Your task to perform on an android device: turn off improve location accuracy Image 0: 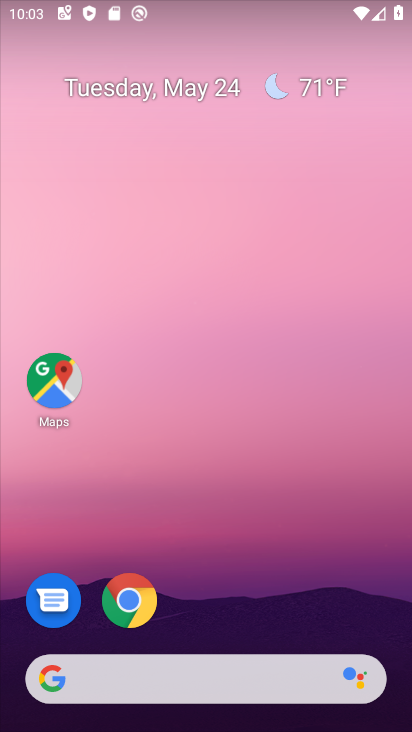
Step 0: press home button
Your task to perform on an android device: turn off improve location accuracy Image 1: 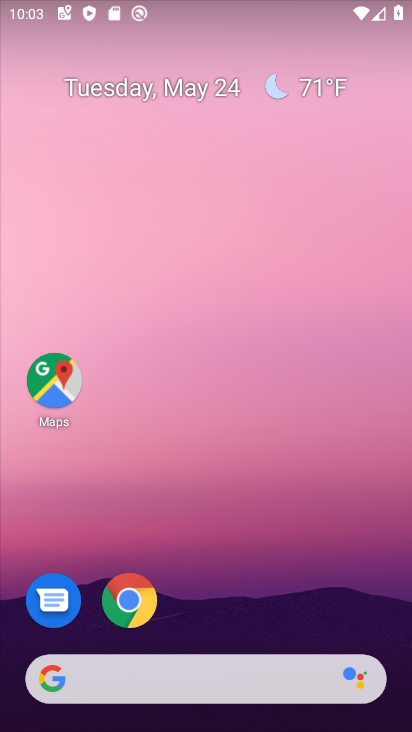
Step 1: drag from (192, 599) to (226, 0)
Your task to perform on an android device: turn off improve location accuracy Image 2: 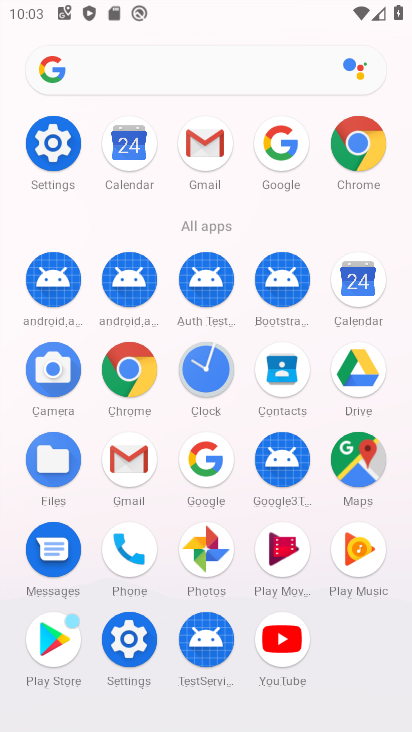
Step 2: click (41, 151)
Your task to perform on an android device: turn off improve location accuracy Image 3: 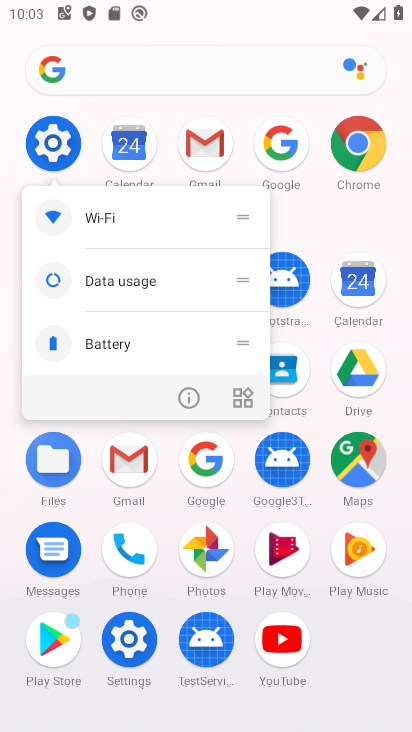
Step 3: click (45, 149)
Your task to perform on an android device: turn off improve location accuracy Image 4: 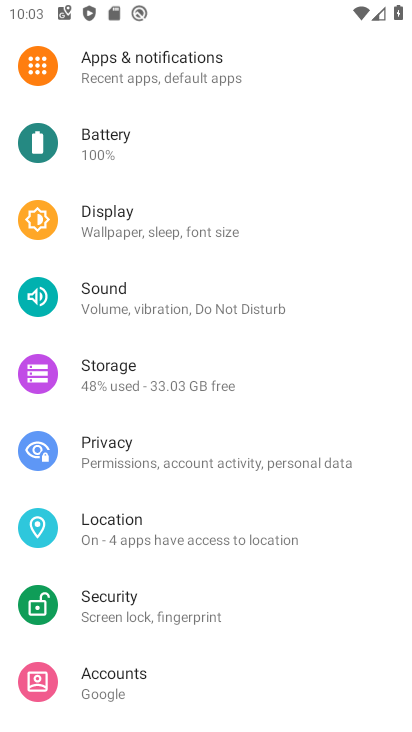
Step 4: click (167, 536)
Your task to perform on an android device: turn off improve location accuracy Image 5: 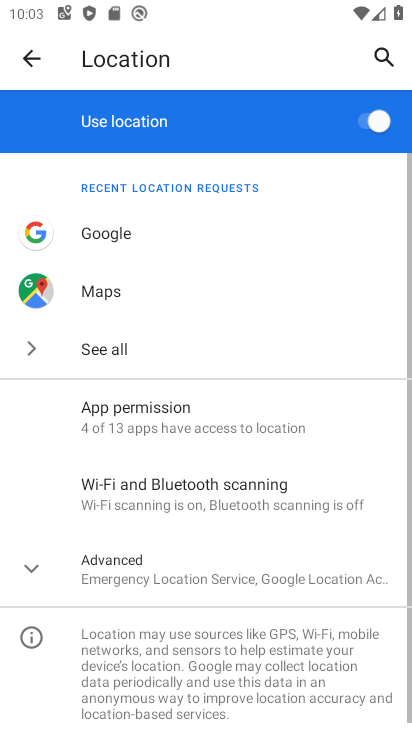
Step 5: click (108, 563)
Your task to perform on an android device: turn off improve location accuracy Image 6: 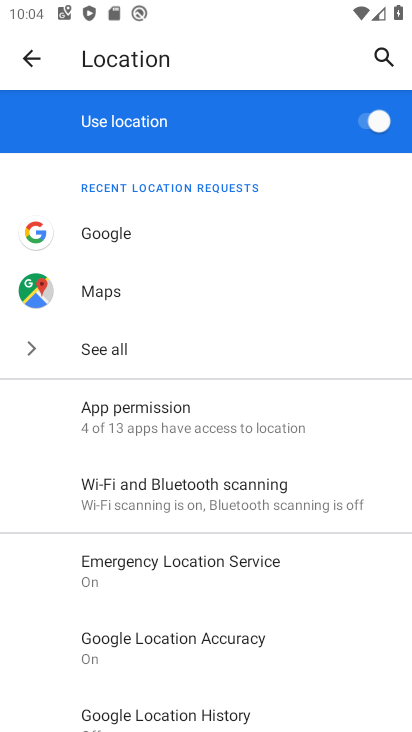
Step 6: click (164, 662)
Your task to perform on an android device: turn off improve location accuracy Image 7: 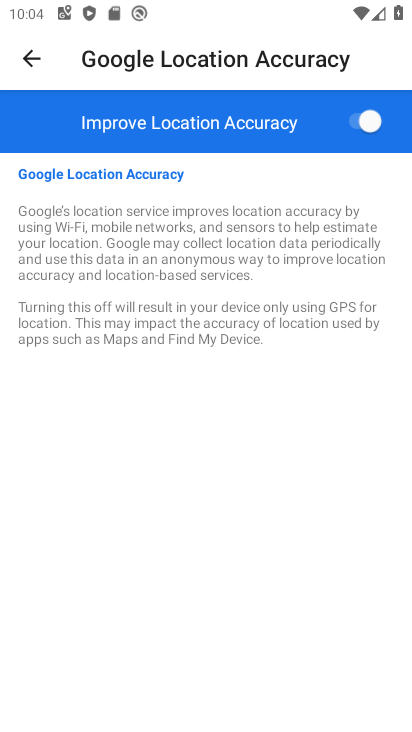
Step 7: click (358, 121)
Your task to perform on an android device: turn off improve location accuracy Image 8: 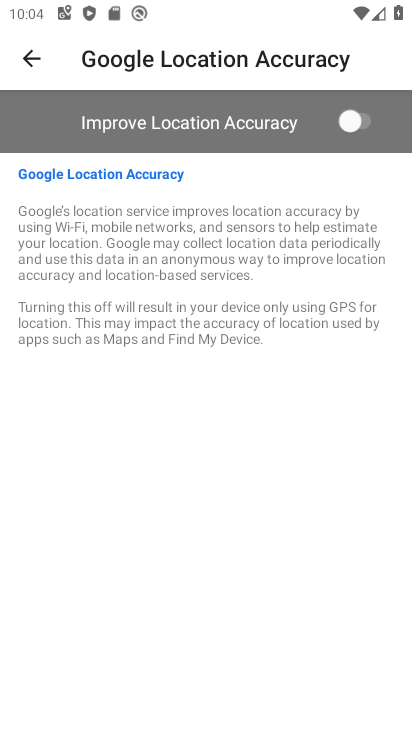
Step 8: task complete